Your task to perform on an android device: Open Youtube and go to the subscriptions tab Image 0: 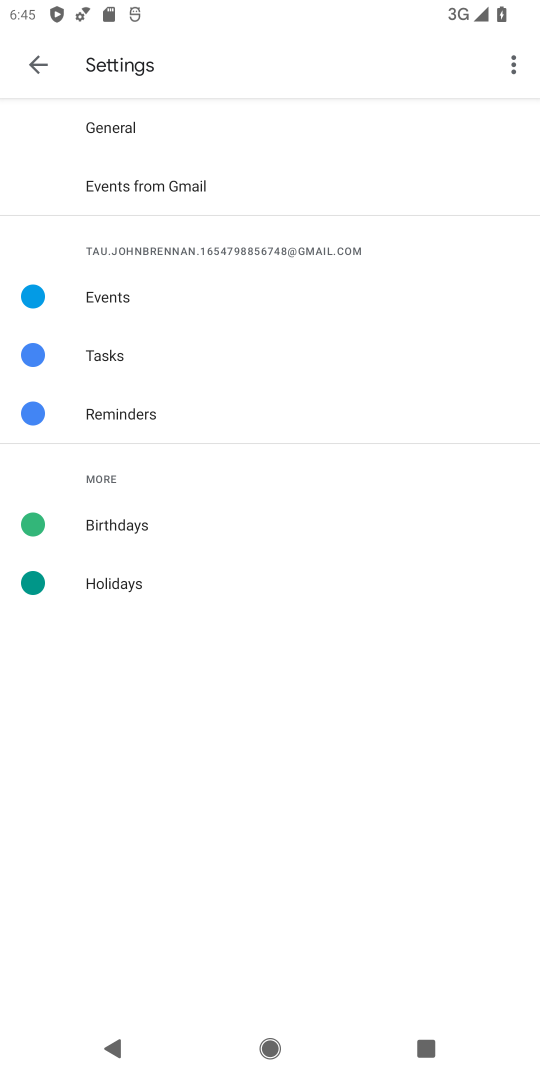
Step 0: press home button
Your task to perform on an android device: Open Youtube and go to the subscriptions tab Image 1: 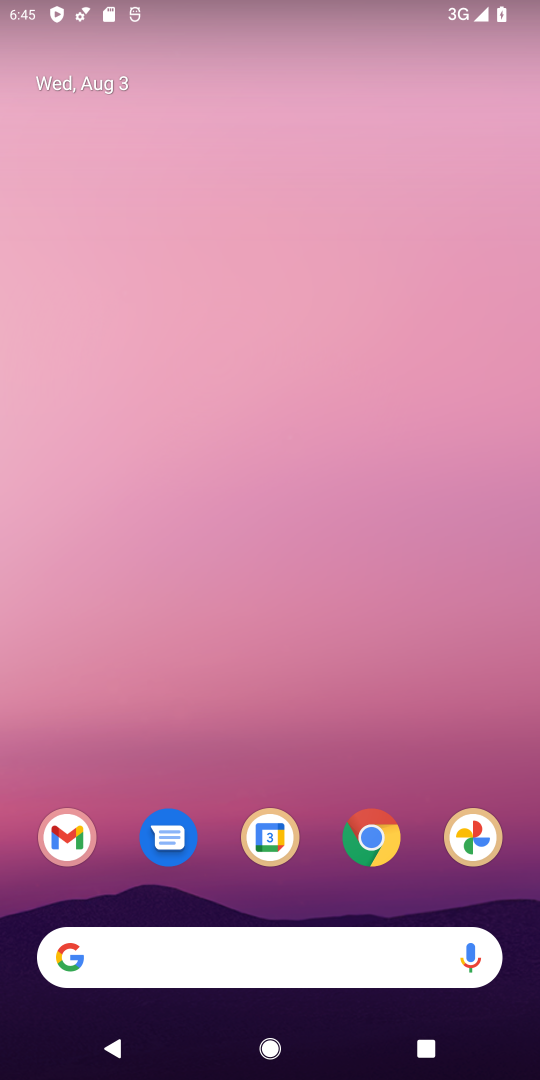
Step 1: drag from (379, 249) to (235, 1056)
Your task to perform on an android device: Open Youtube and go to the subscriptions tab Image 2: 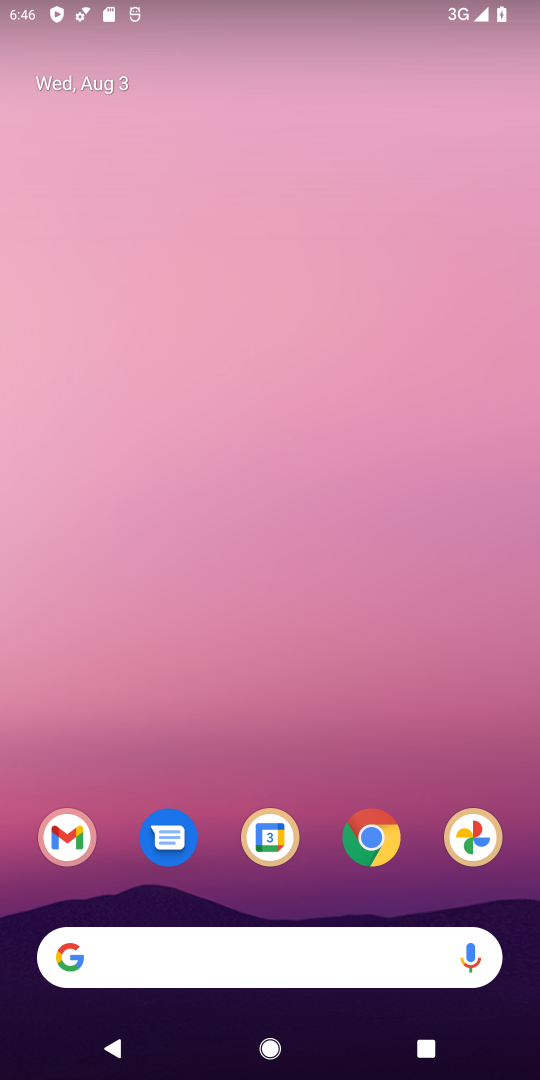
Step 2: drag from (374, 719) to (445, 52)
Your task to perform on an android device: Open Youtube and go to the subscriptions tab Image 3: 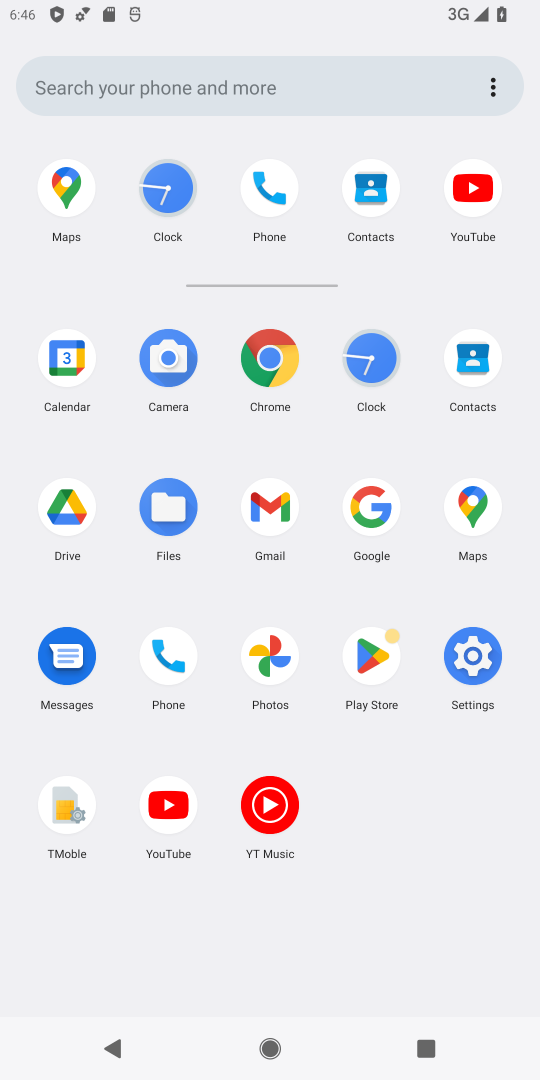
Step 3: click (187, 781)
Your task to perform on an android device: Open Youtube and go to the subscriptions tab Image 4: 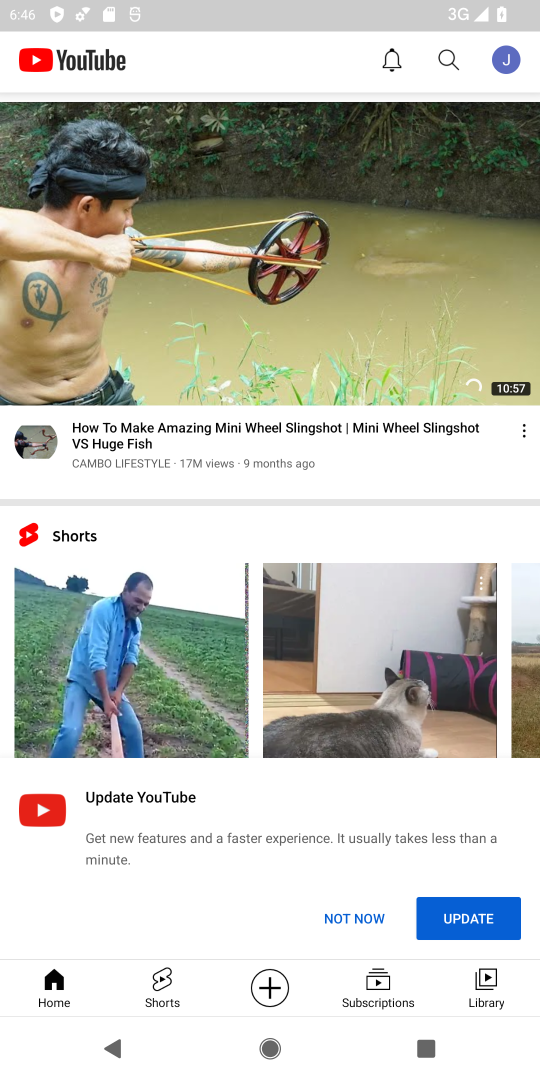
Step 4: click (375, 985)
Your task to perform on an android device: Open Youtube and go to the subscriptions tab Image 5: 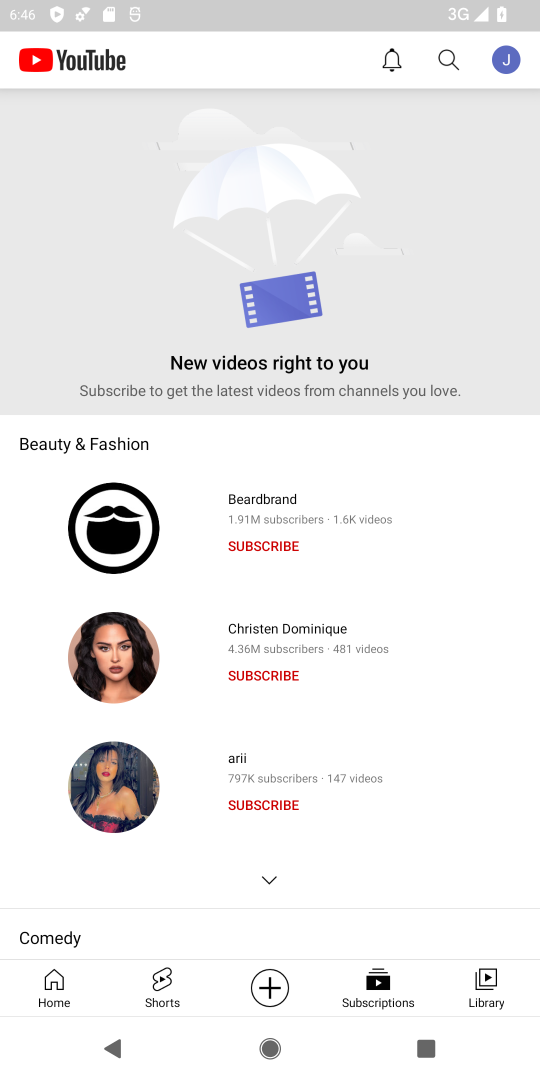
Step 5: task complete